Your task to perform on an android device: change the upload size in google photos Image 0: 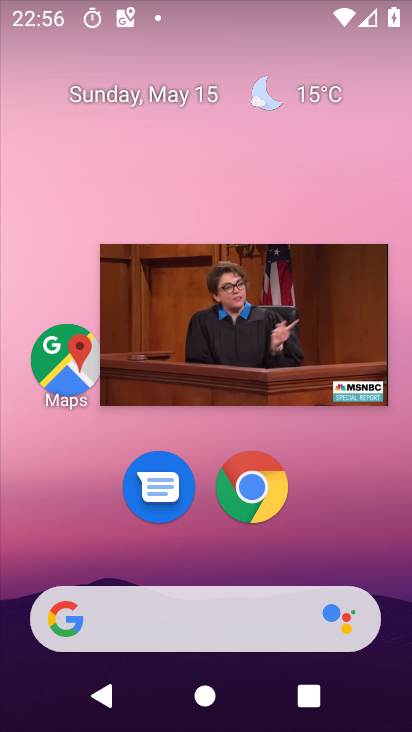
Step 0: click (352, 286)
Your task to perform on an android device: change the upload size in google photos Image 1: 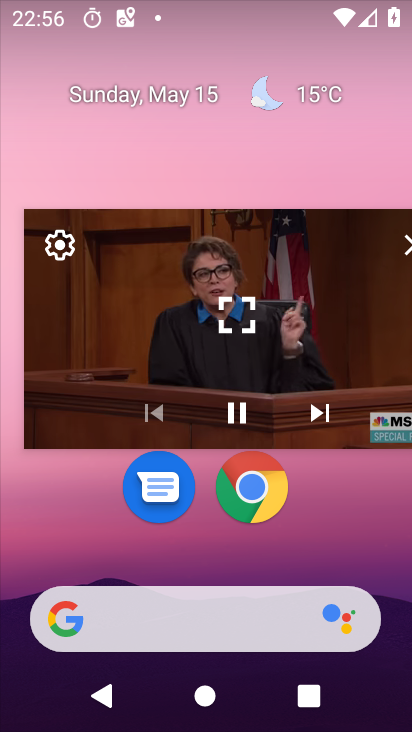
Step 1: drag from (374, 393) to (357, 305)
Your task to perform on an android device: change the upload size in google photos Image 2: 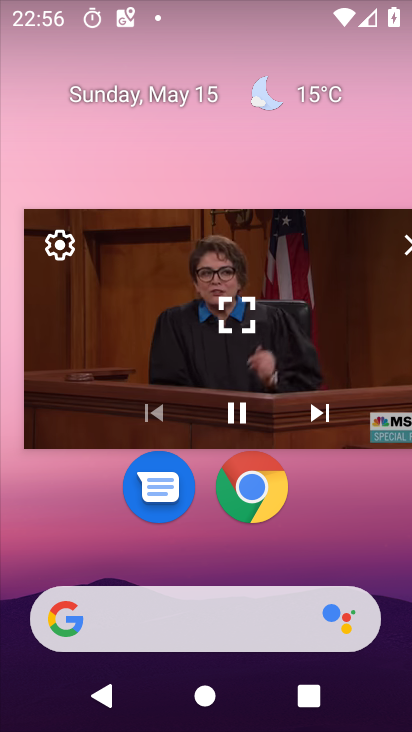
Step 2: click (234, 421)
Your task to perform on an android device: change the upload size in google photos Image 3: 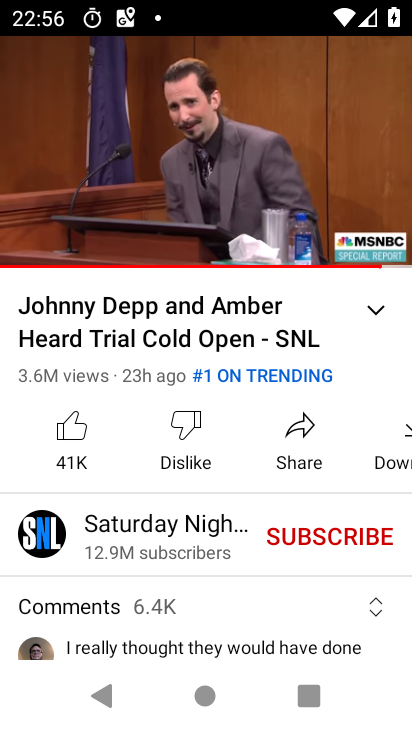
Step 3: click (167, 143)
Your task to perform on an android device: change the upload size in google photos Image 4: 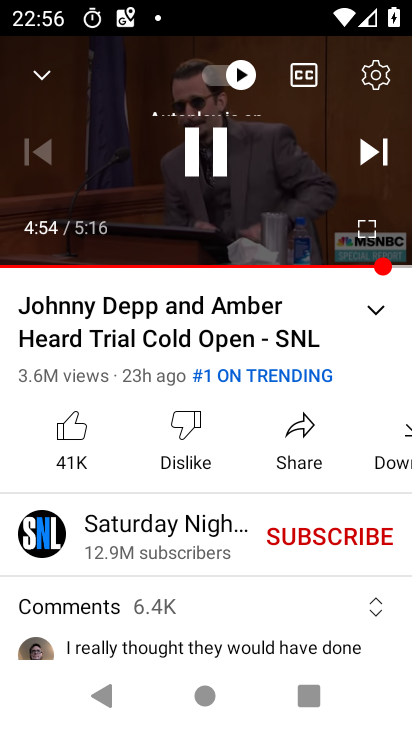
Step 4: press back button
Your task to perform on an android device: change the upload size in google photos Image 5: 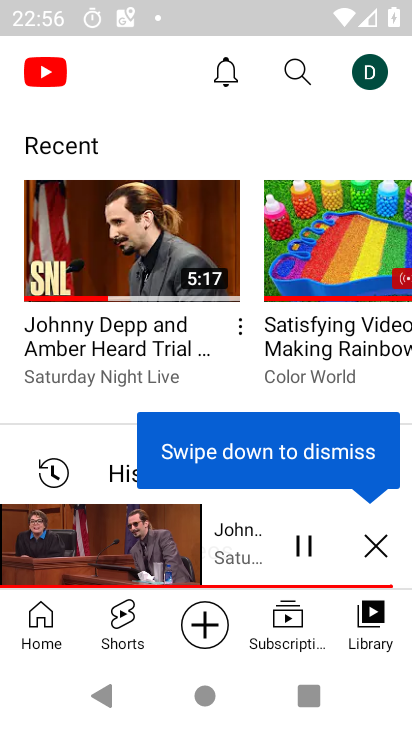
Step 5: press home button
Your task to perform on an android device: change the upload size in google photos Image 6: 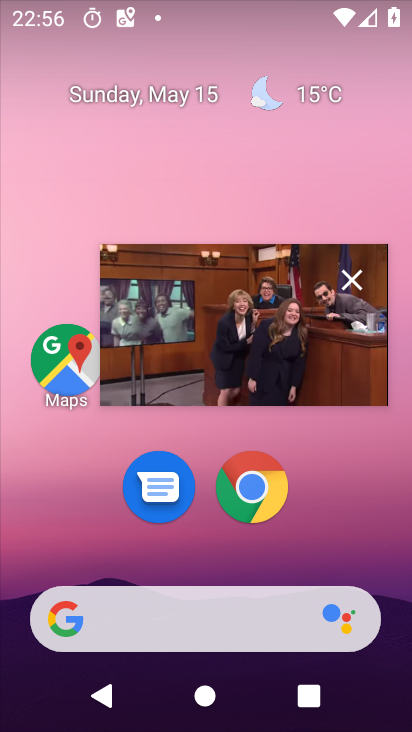
Step 6: click (342, 271)
Your task to perform on an android device: change the upload size in google photos Image 7: 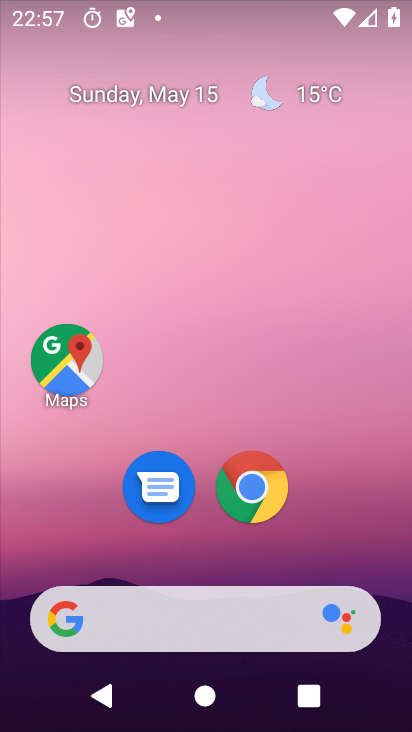
Step 7: drag from (394, 661) to (363, 150)
Your task to perform on an android device: change the upload size in google photos Image 8: 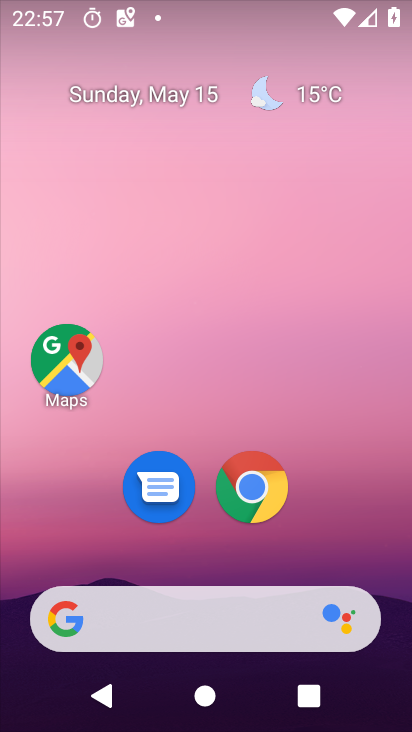
Step 8: drag from (391, 660) to (367, 255)
Your task to perform on an android device: change the upload size in google photos Image 9: 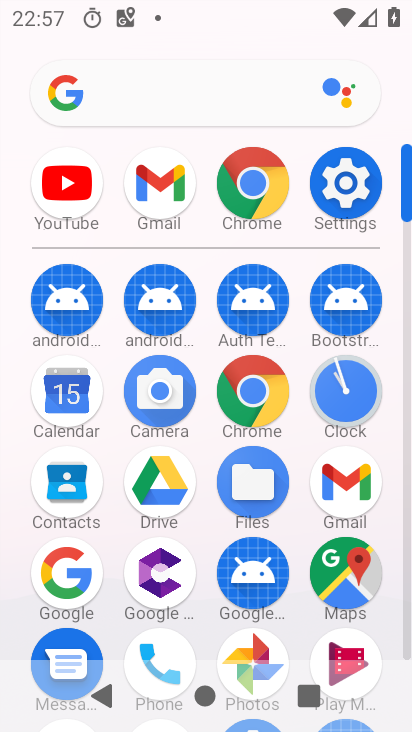
Step 9: click (250, 638)
Your task to perform on an android device: change the upload size in google photos Image 10: 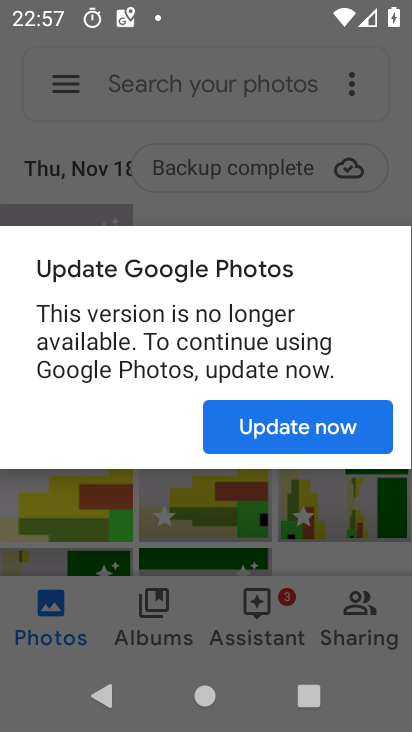
Step 10: click (271, 434)
Your task to perform on an android device: change the upload size in google photos Image 11: 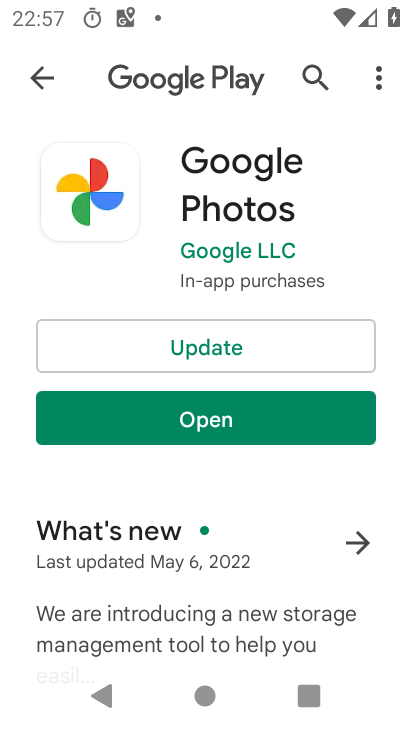
Step 11: click (262, 423)
Your task to perform on an android device: change the upload size in google photos Image 12: 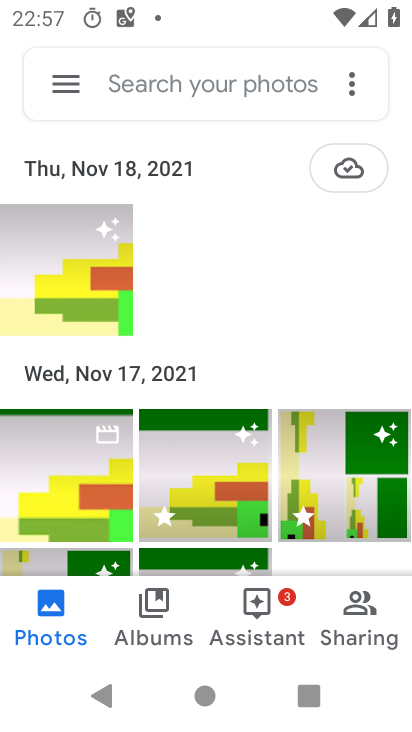
Step 12: click (73, 76)
Your task to perform on an android device: change the upload size in google photos Image 13: 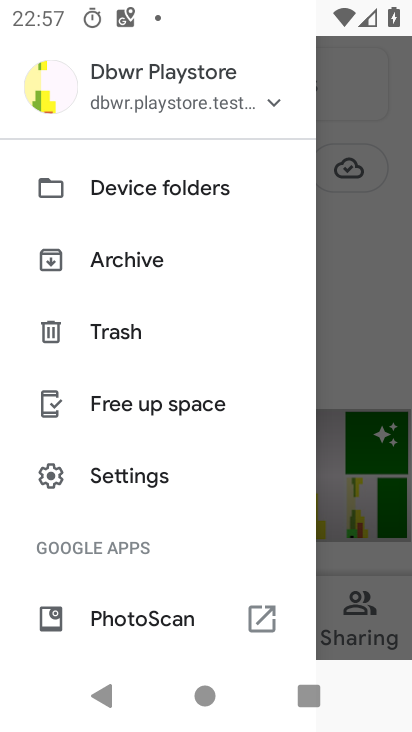
Step 13: click (118, 480)
Your task to perform on an android device: change the upload size in google photos Image 14: 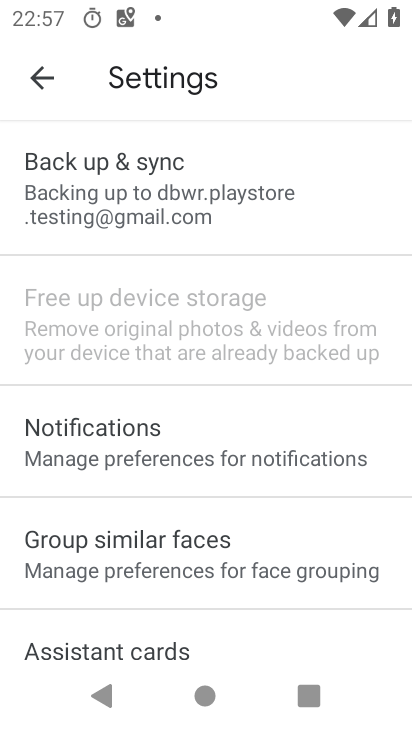
Step 14: click (123, 166)
Your task to perform on an android device: change the upload size in google photos Image 15: 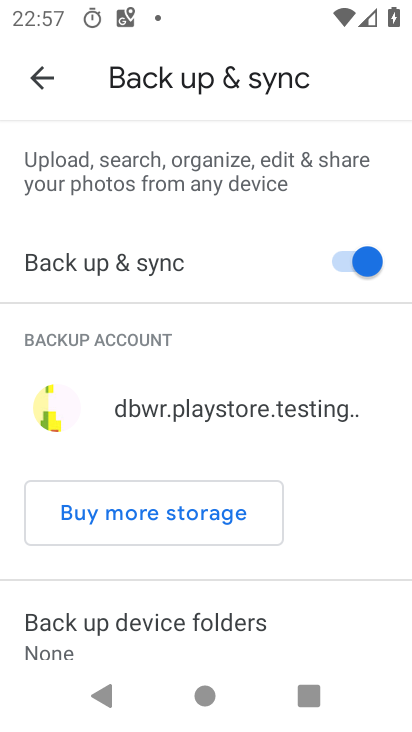
Step 15: drag from (271, 600) to (255, 315)
Your task to perform on an android device: change the upload size in google photos Image 16: 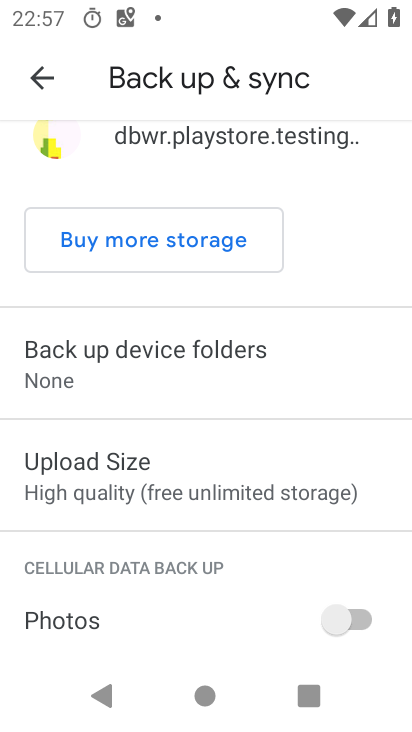
Step 16: click (109, 469)
Your task to perform on an android device: change the upload size in google photos Image 17: 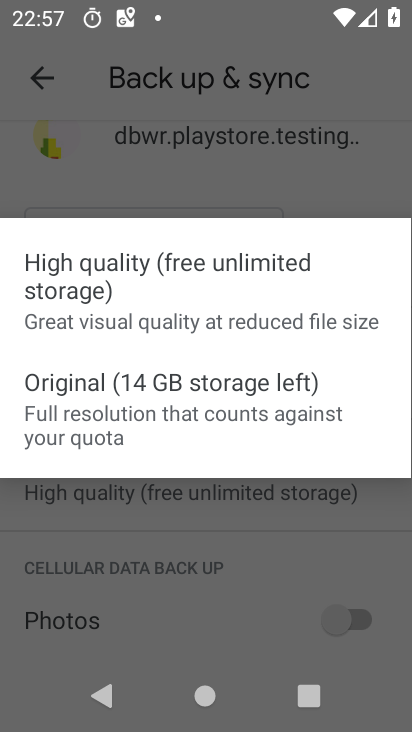
Step 17: click (240, 529)
Your task to perform on an android device: change the upload size in google photos Image 18: 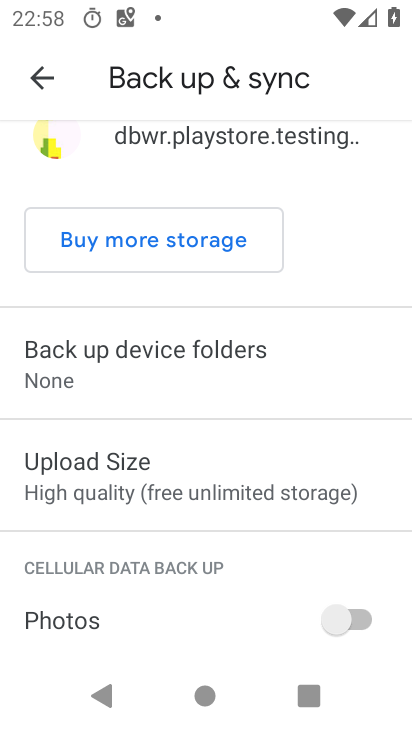
Step 18: click (112, 470)
Your task to perform on an android device: change the upload size in google photos Image 19: 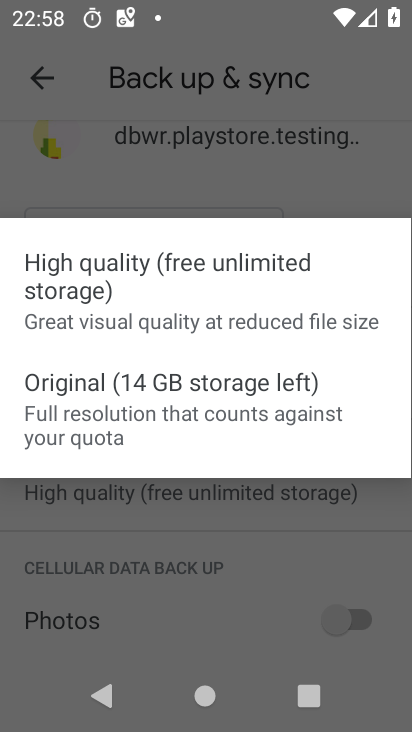
Step 19: click (70, 392)
Your task to perform on an android device: change the upload size in google photos Image 20: 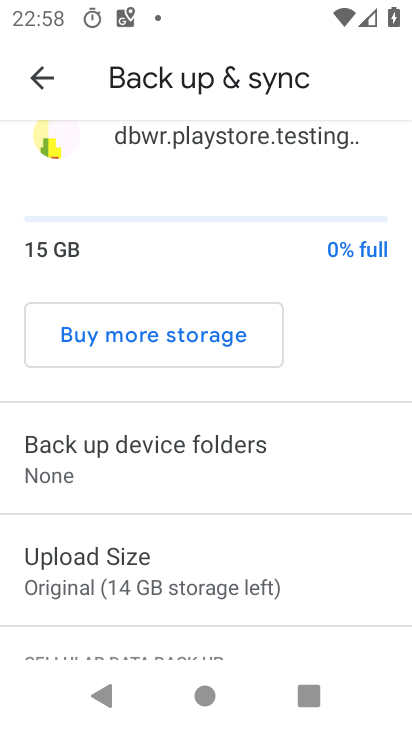
Step 20: task complete